Your task to perform on an android device: open app "Cash App" (install if not already installed), go to login, and select forgot password Image 0: 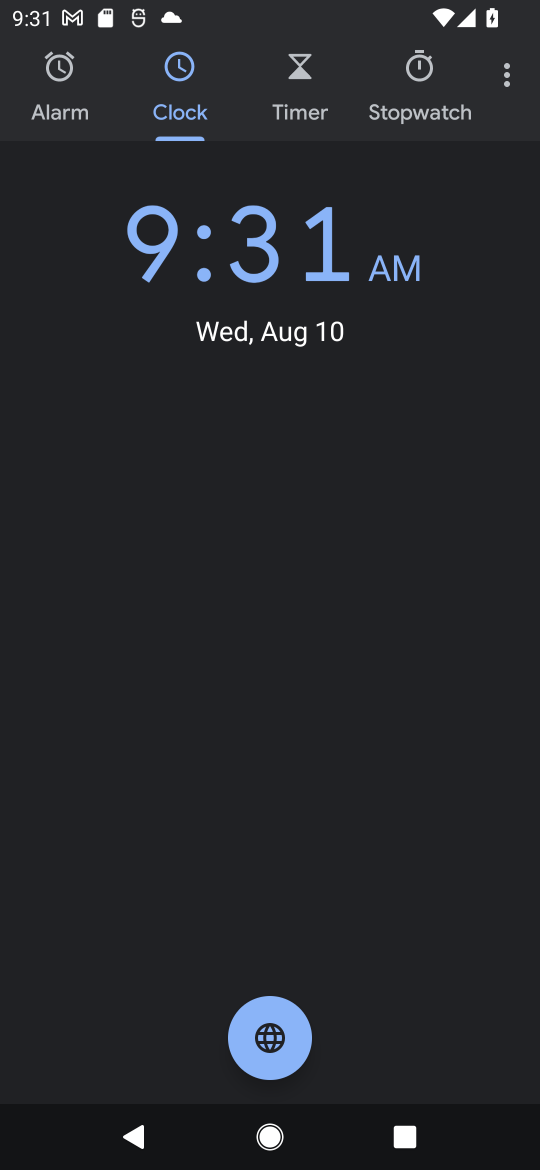
Step 0: press home button
Your task to perform on an android device: open app "Cash App" (install if not already installed), go to login, and select forgot password Image 1: 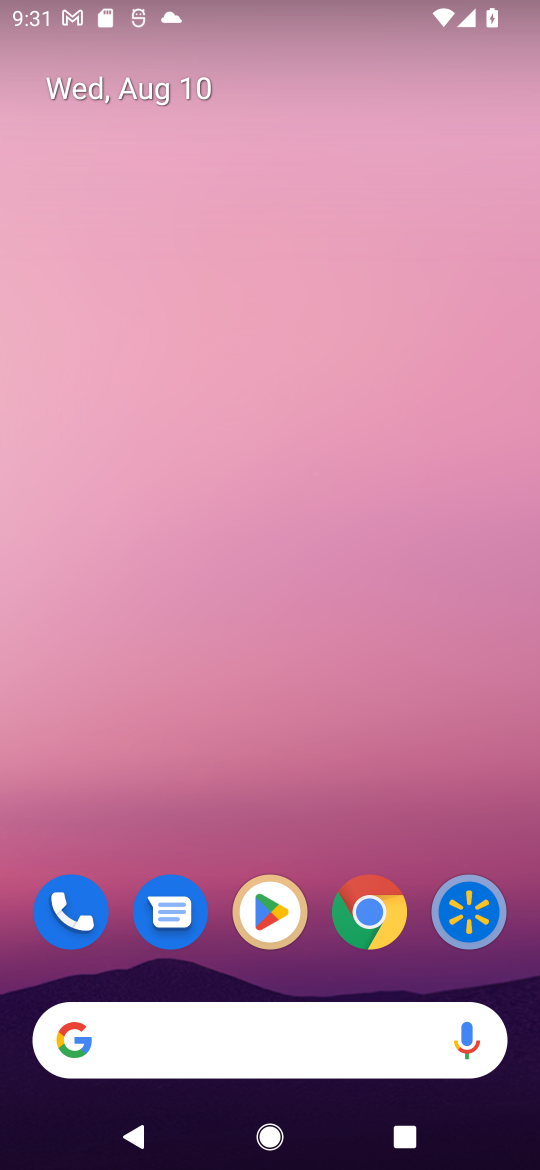
Step 1: drag from (525, 1003) to (192, 6)
Your task to perform on an android device: open app "Cash App" (install if not already installed), go to login, and select forgot password Image 2: 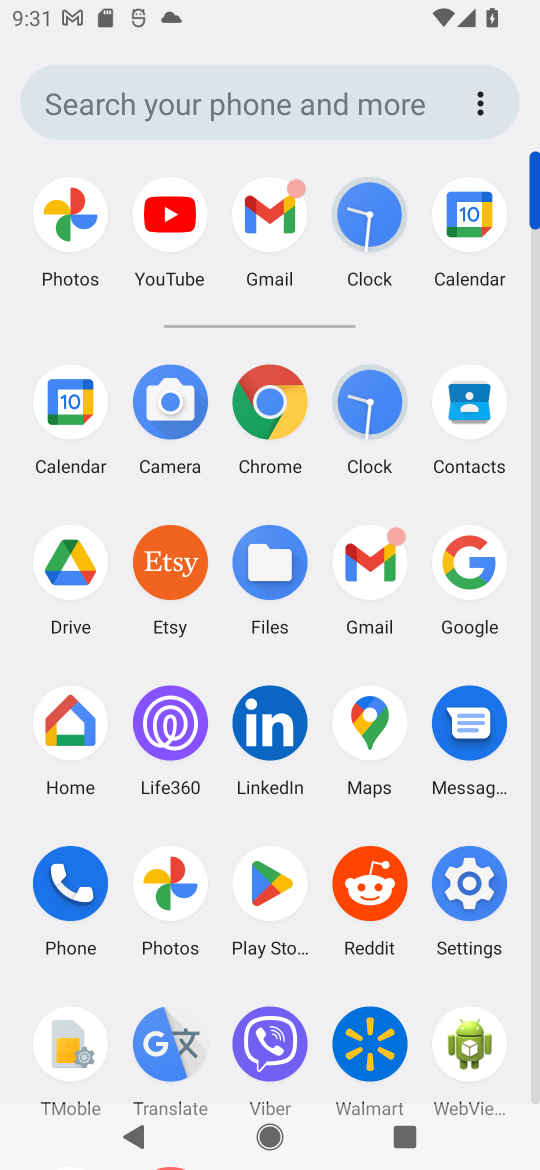
Step 2: click (263, 898)
Your task to perform on an android device: open app "Cash App" (install if not already installed), go to login, and select forgot password Image 3: 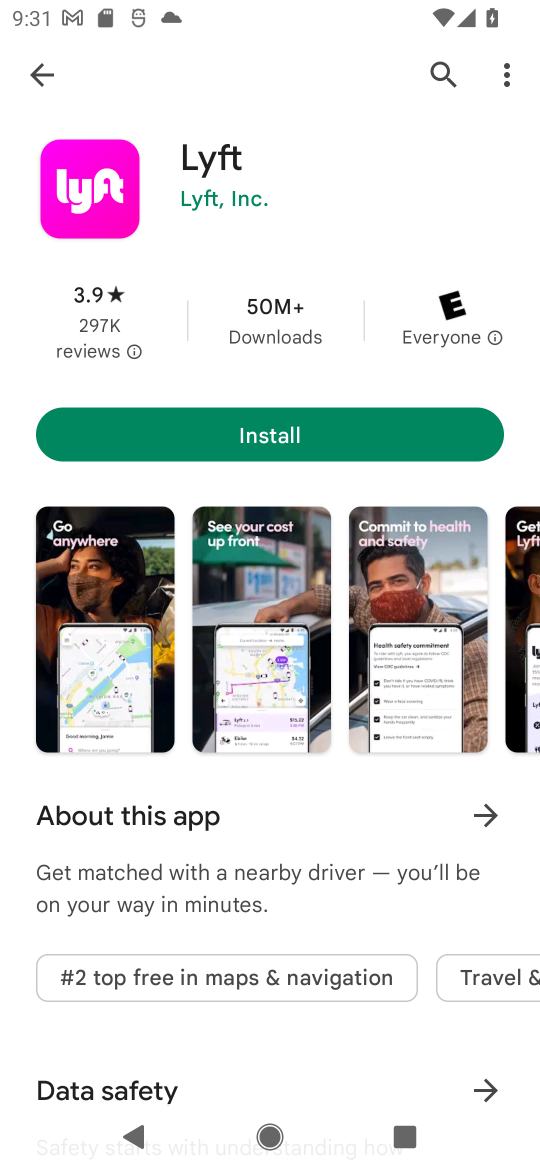
Step 3: press back button
Your task to perform on an android device: open app "Cash App" (install if not already installed), go to login, and select forgot password Image 4: 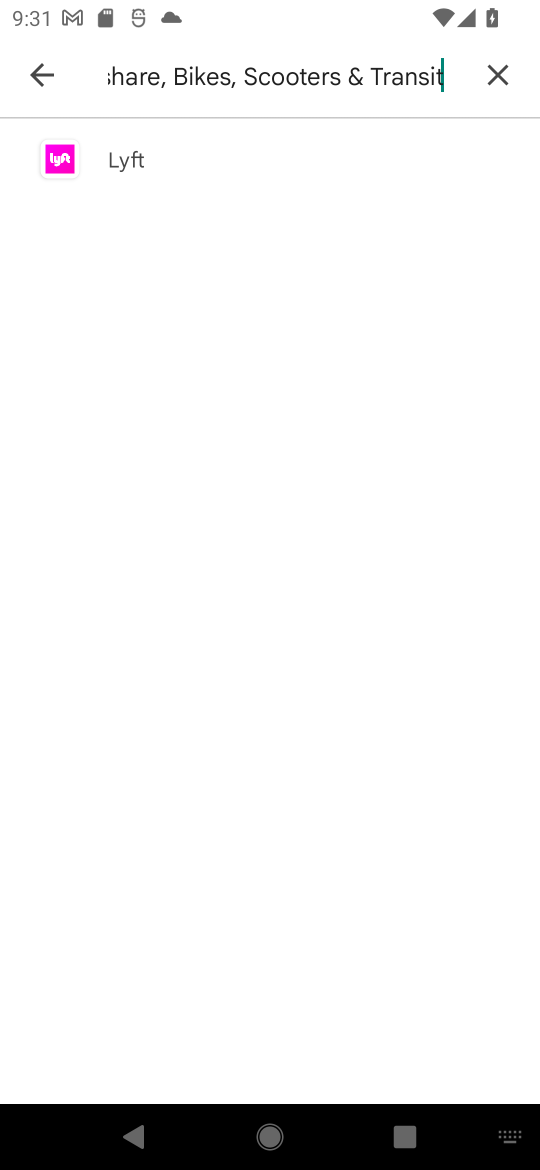
Step 4: press back button
Your task to perform on an android device: open app "Cash App" (install if not already installed), go to login, and select forgot password Image 5: 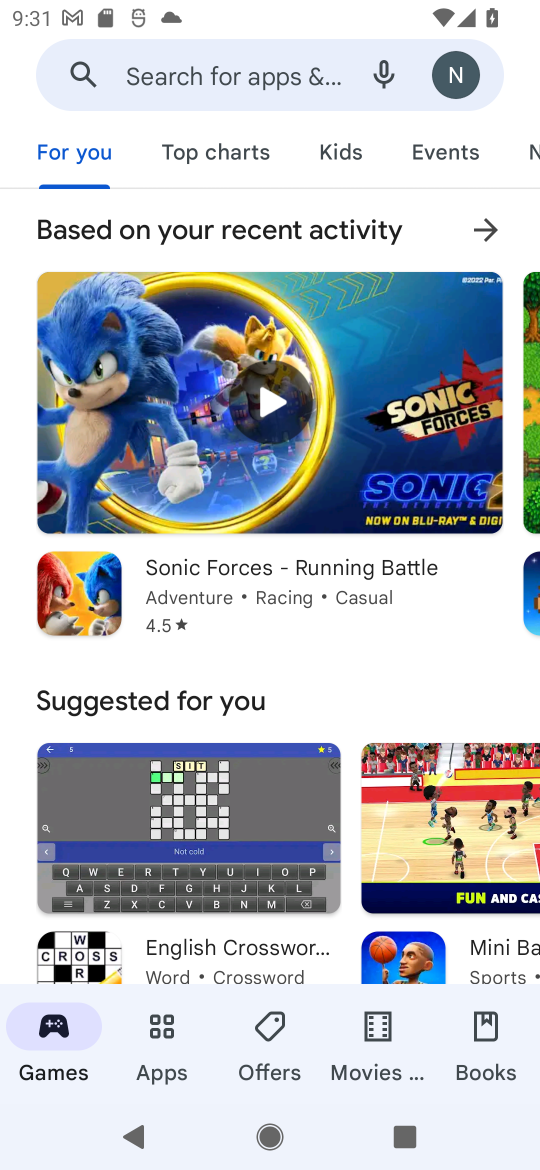
Step 5: click (188, 58)
Your task to perform on an android device: open app "Cash App" (install if not already installed), go to login, and select forgot password Image 6: 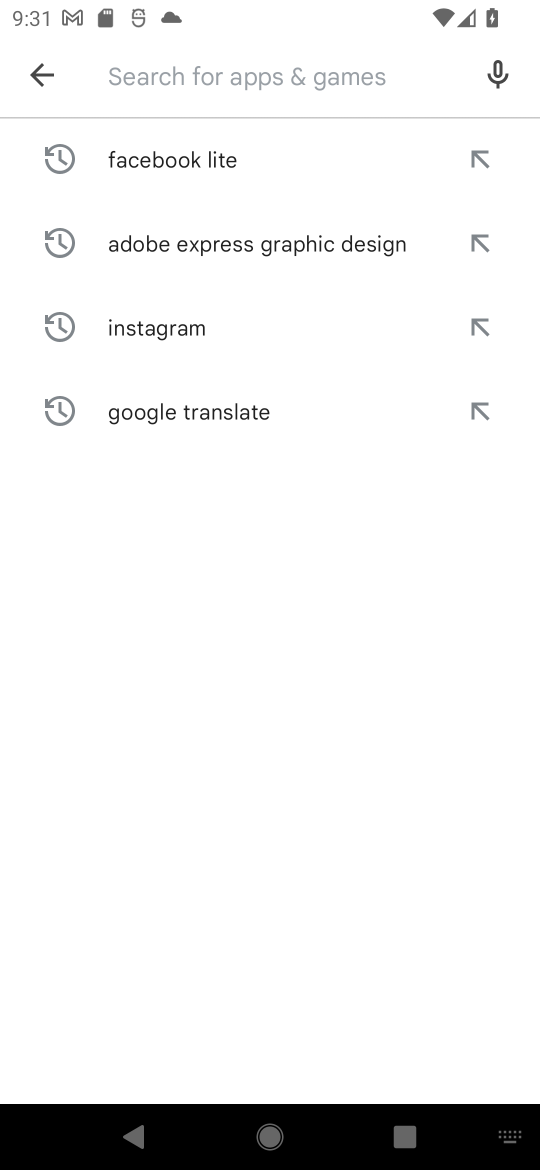
Step 6: type "Cash App"
Your task to perform on an android device: open app "Cash App" (install if not already installed), go to login, and select forgot password Image 7: 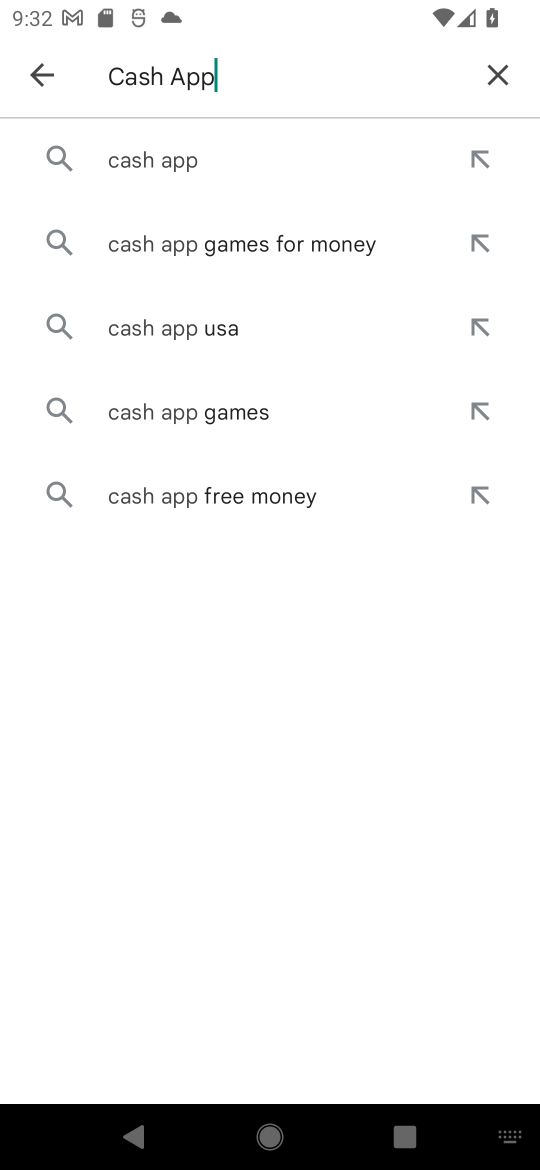
Step 7: click (197, 179)
Your task to perform on an android device: open app "Cash App" (install if not already installed), go to login, and select forgot password Image 8: 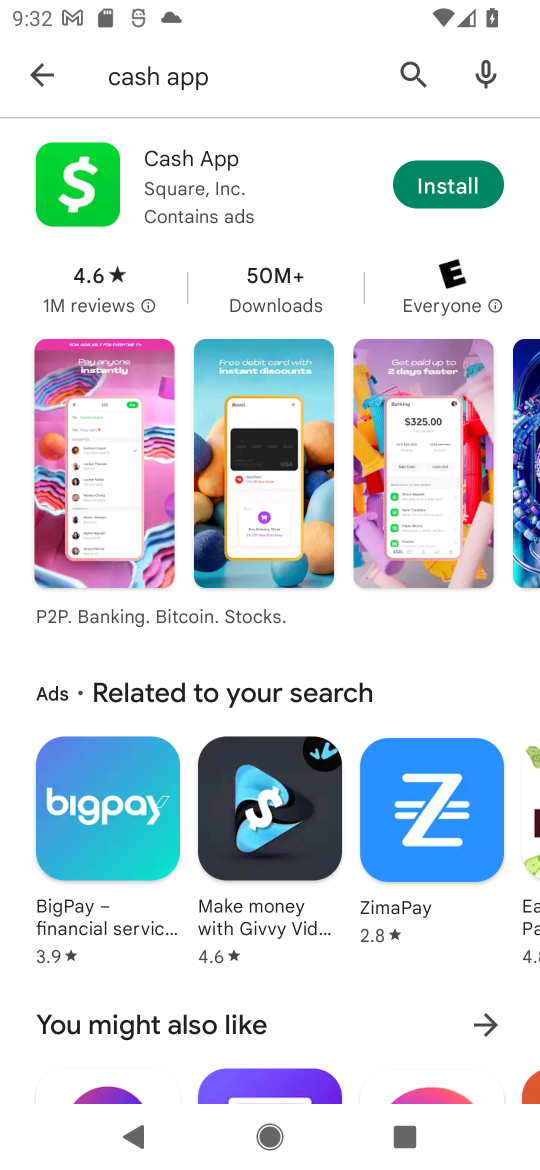
Step 8: task complete